Your task to perform on an android device: Open the phone app and click the voicemail tab. Image 0: 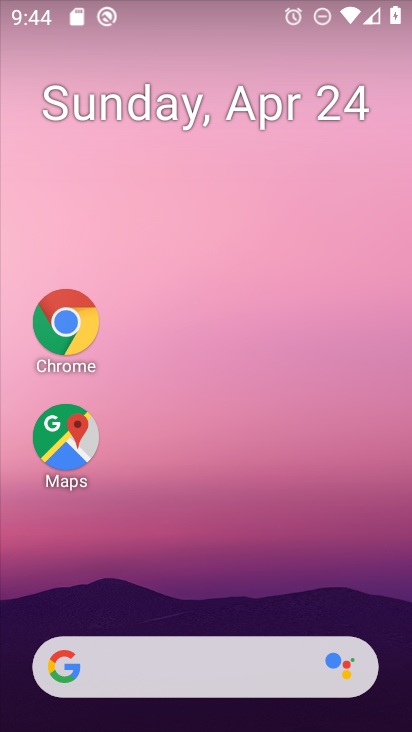
Step 0: drag from (273, 594) to (301, 96)
Your task to perform on an android device: Open the phone app and click the voicemail tab. Image 1: 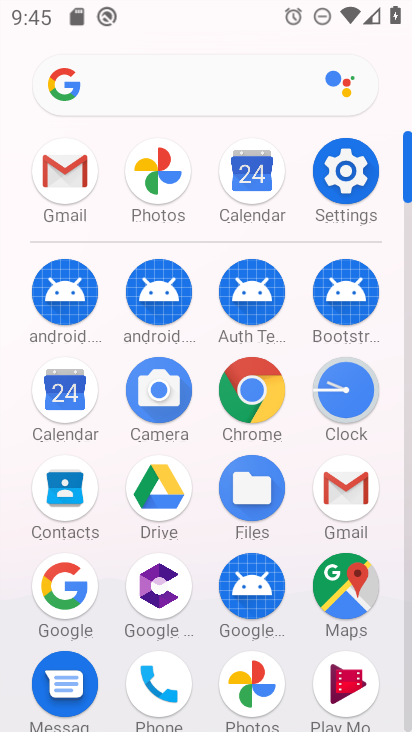
Step 1: click (155, 677)
Your task to perform on an android device: Open the phone app and click the voicemail tab. Image 2: 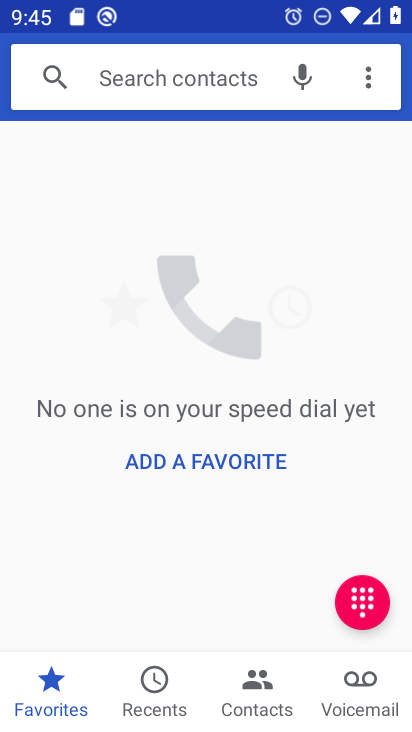
Step 2: click (367, 685)
Your task to perform on an android device: Open the phone app and click the voicemail tab. Image 3: 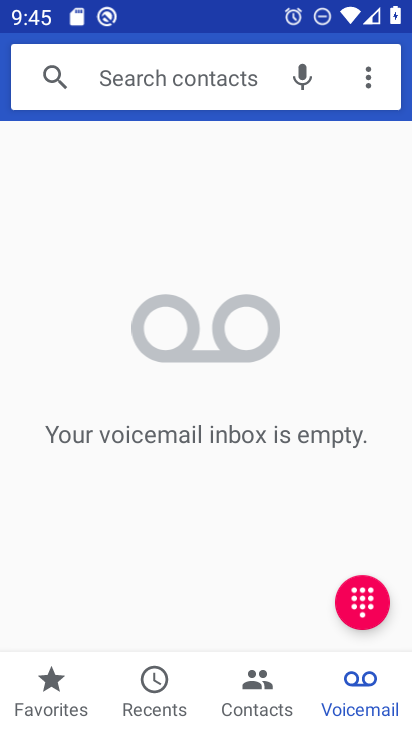
Step 3: task complete